Your task to perform on an android device: turn off priority inbox in the gmail app Image 0: 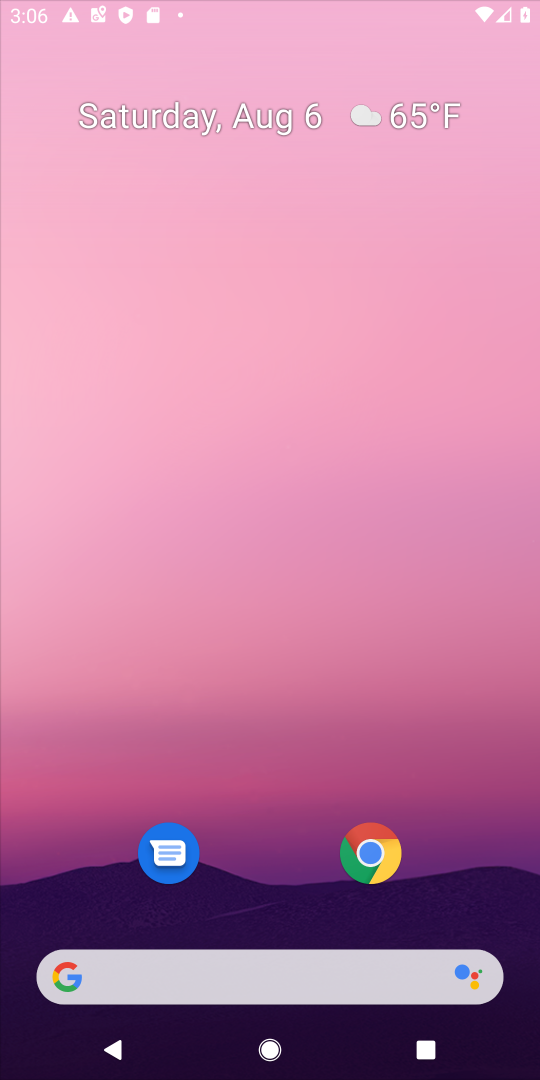
Step 0: drag from (222, 909) to (440, 0)
Your task to perform on an android device: turn off priority inbox in the gmail app Image 1: 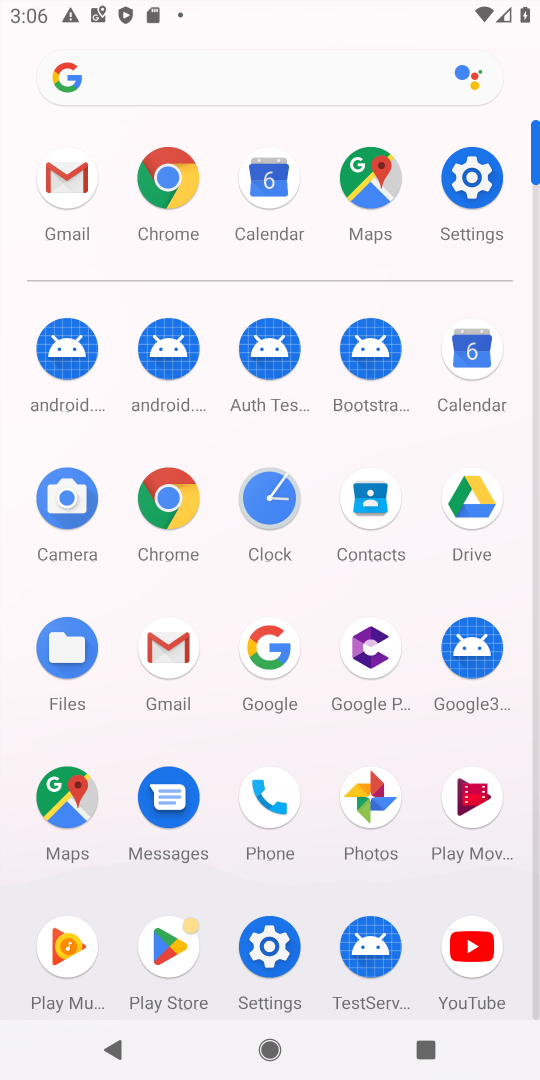
Step 1: click (74, 174)
Your task to perform on an android device: turn off priority inbox in the gmail app Image 2: 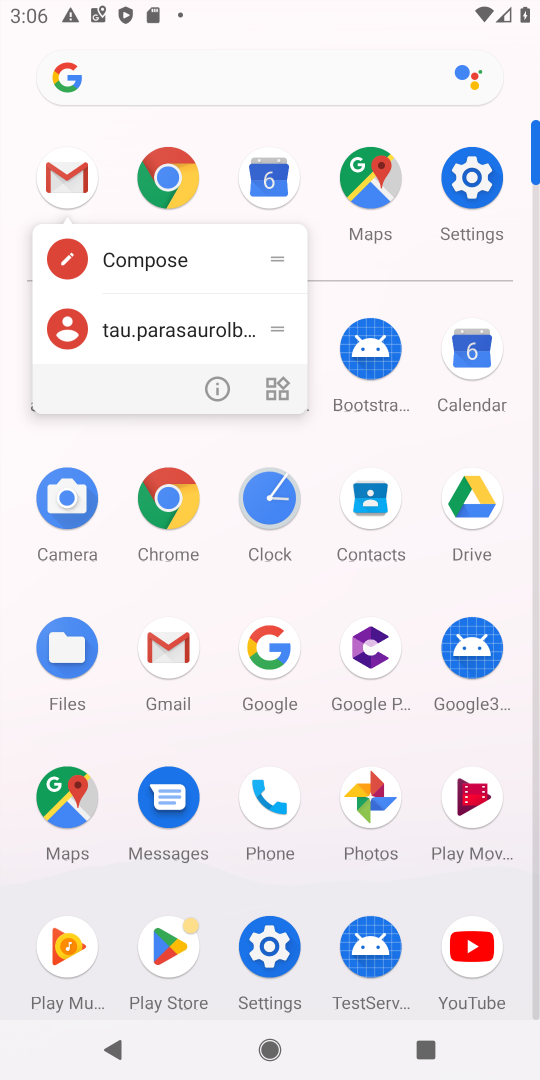
Step 2: click (67, 177)
Your task to perform on an android device: turn off priority inbox in the gmail app Image 3: 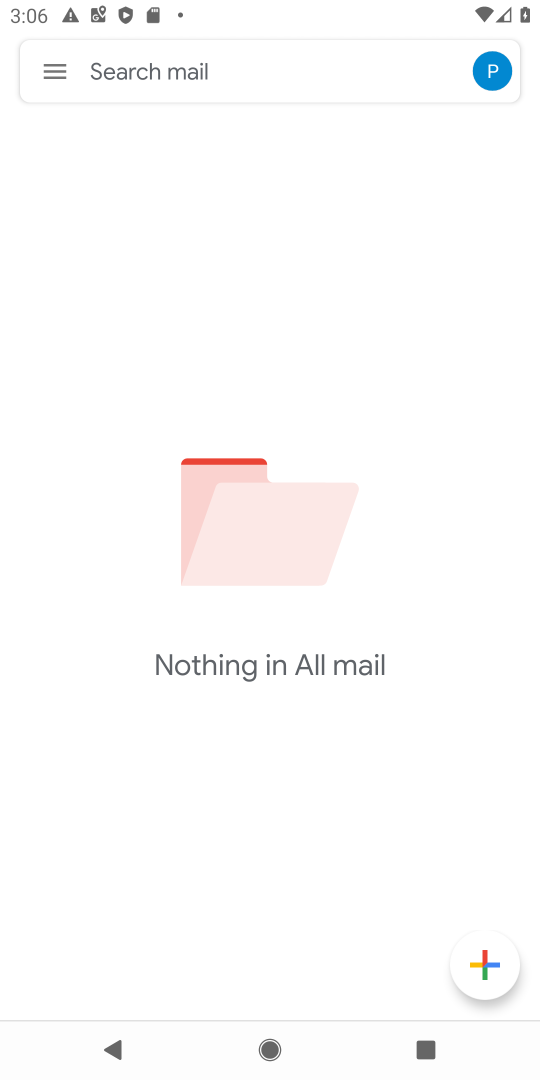
Step 3: click (56, 70)
Your task to perform on an android device: turn off priority inbox in the gmail app Image 4: 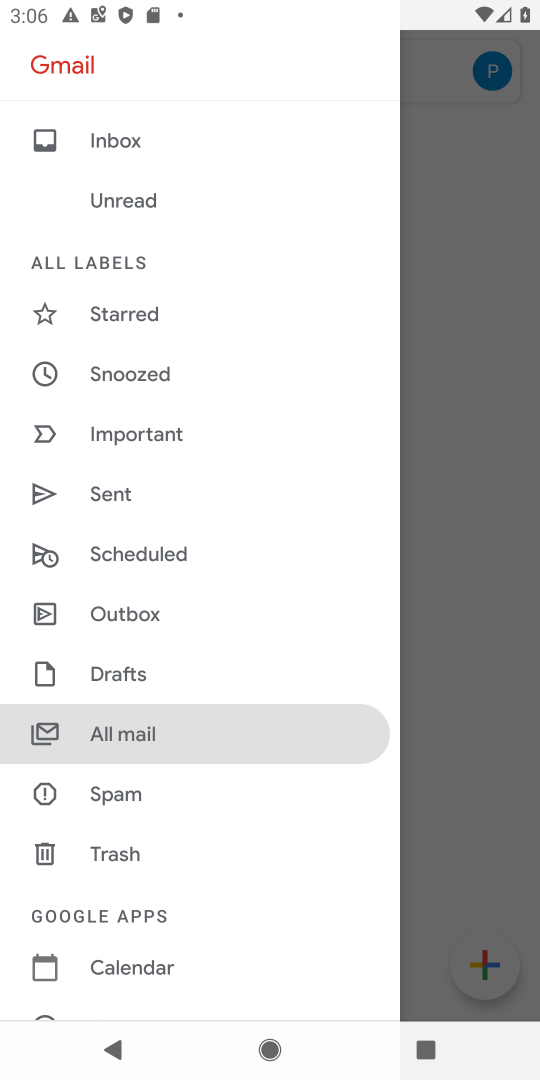
Step 4: drag from (127, 902) to (295, 88)
Your task to perform on an android device: turn off priority inbox in the gmail app Image 5: 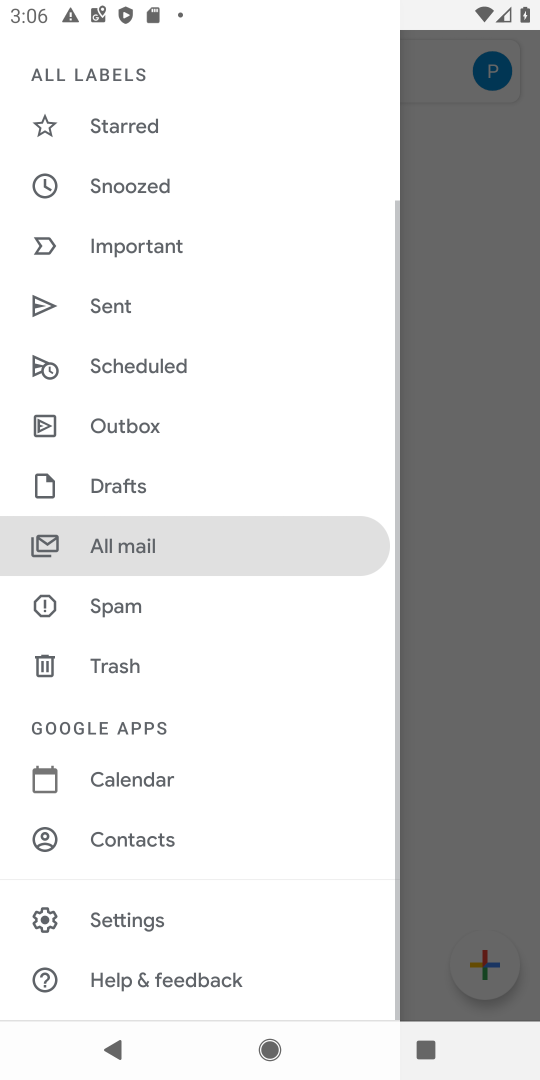
Step 5: click (120, 915)
Your task to perform on an android device: turn off priority inbox in the gmail app Image 6: 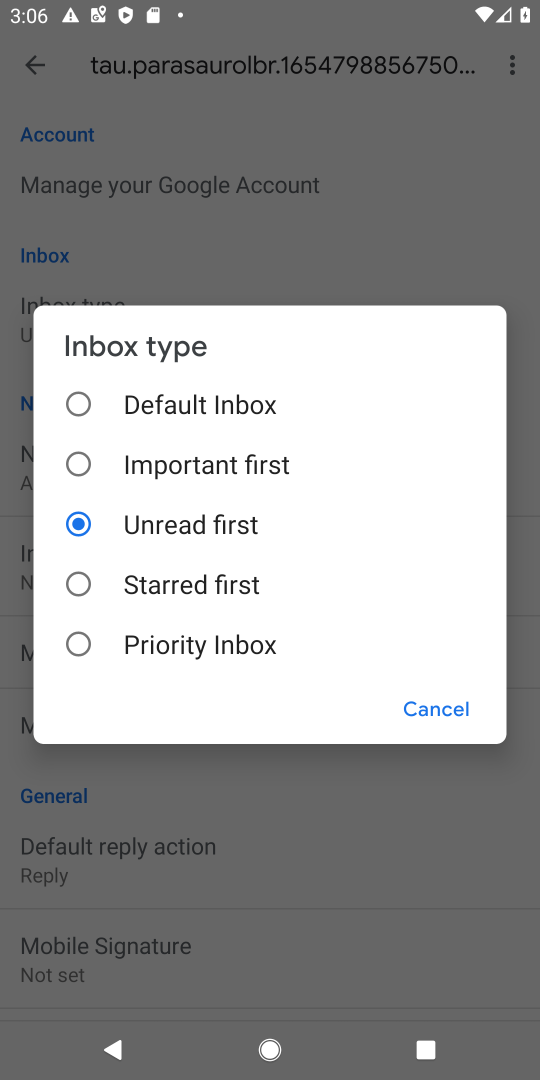
Step 6: task complete